Your task to perform on an android device: What's the weather today? Image 0: 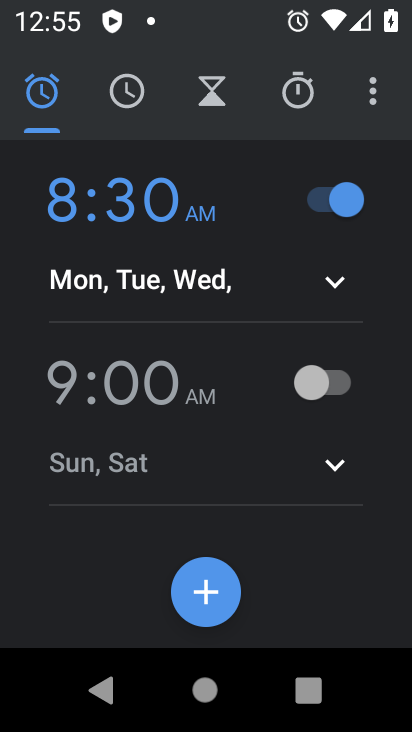
Step 0: press home button
Your task to perform on an android device: What's the weather today? Image 1: 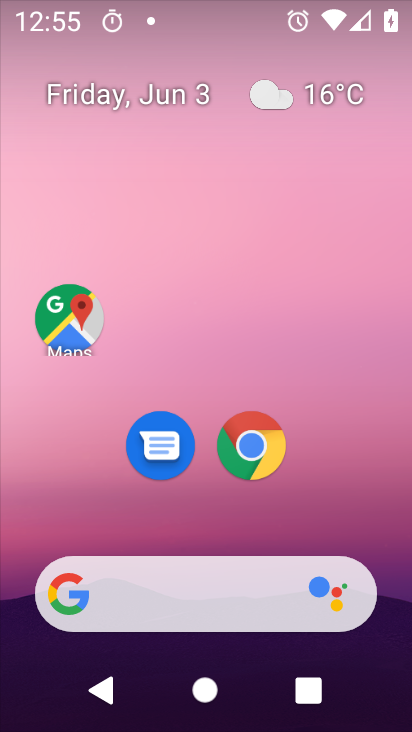
Step 1: click (335, 103)
Your task to perform on an android device: What's the weather today? Image 2: 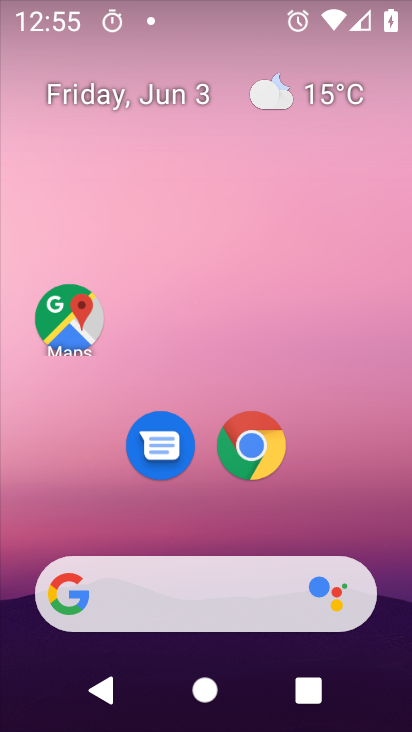
Step 2: click (333, 95)
Your task to perform on an android device: What's the weather today? Image 3: 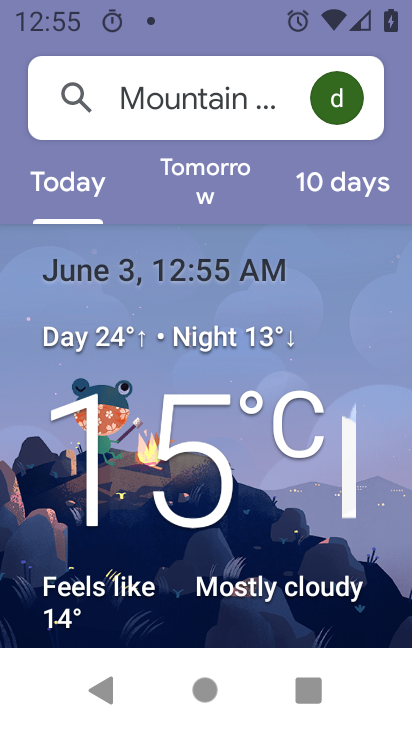
Step 3: task complete